Your task to perform on an android device: snooze an email in the gmail app Image 0: 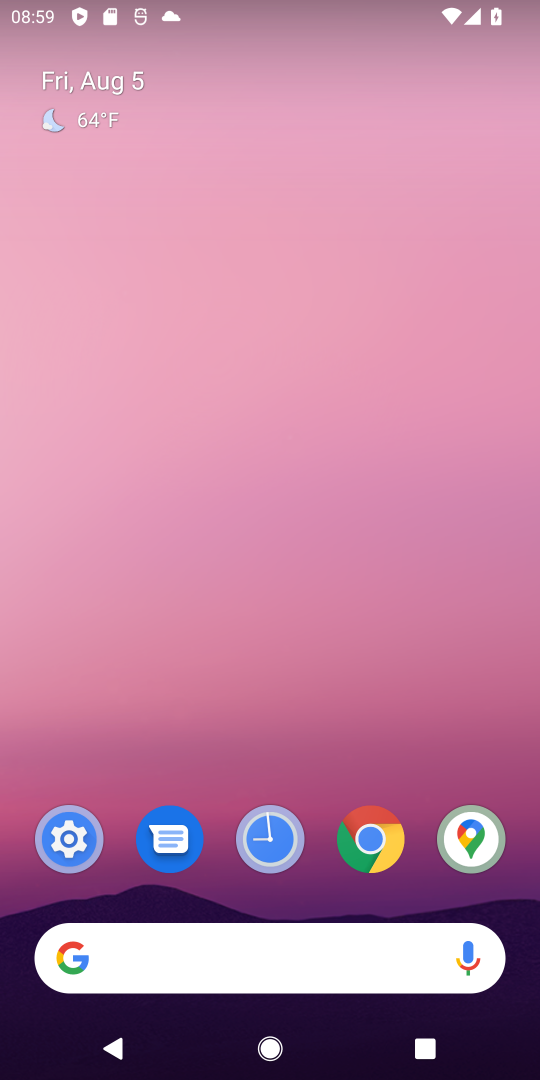
Step 0: drag from (289, 791) to (291, 167)
Your task to perform on an android device: snooze an email in the gmail app Image 1: 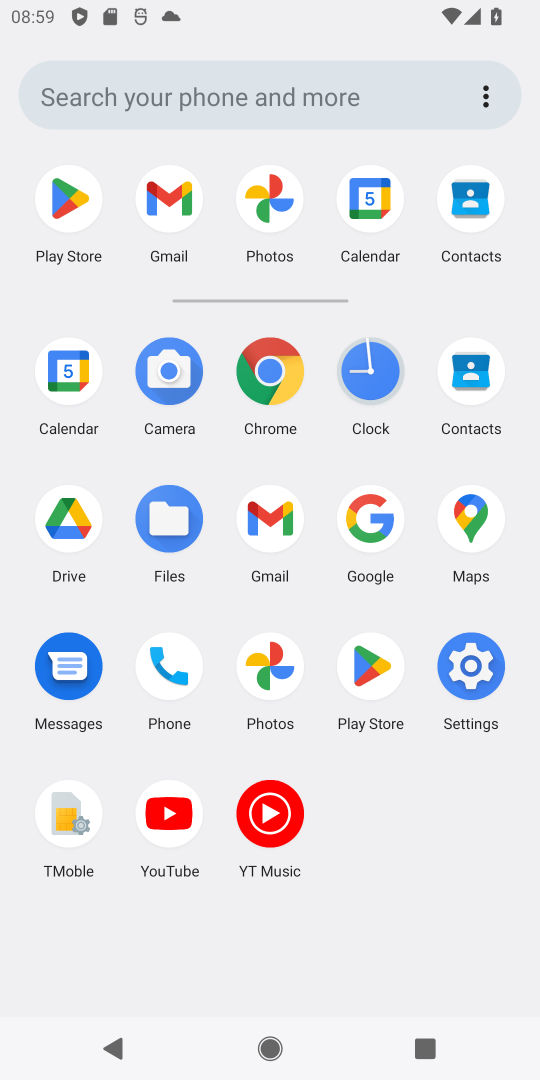
Step 1: click (283, 522)
Your task to perform on an android device: snooze an email in the gmail app Image 2: 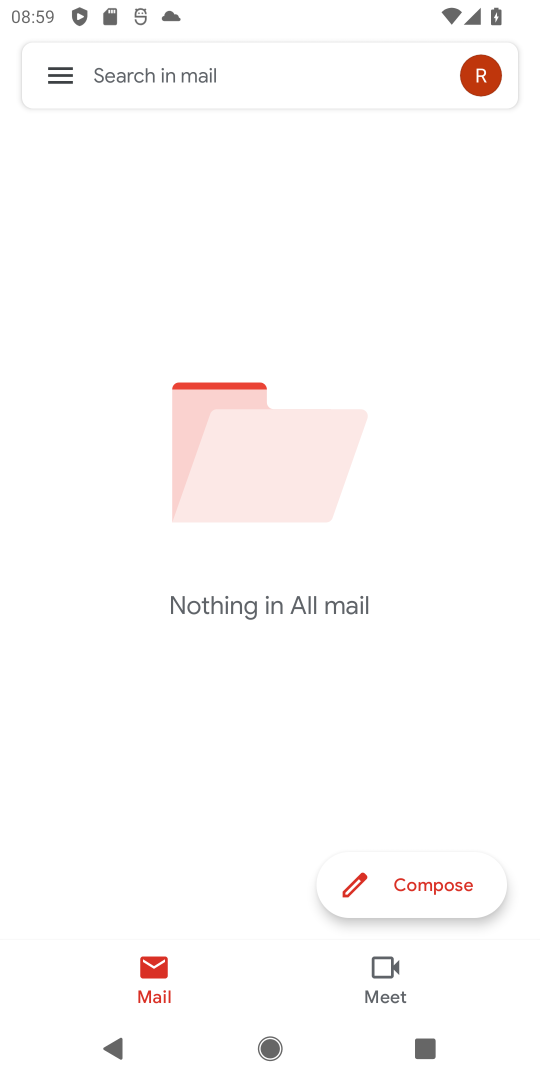
Step 2: click (61, 87)
Your task to perform on an android device: snooze an email in the gmail app Image 3: 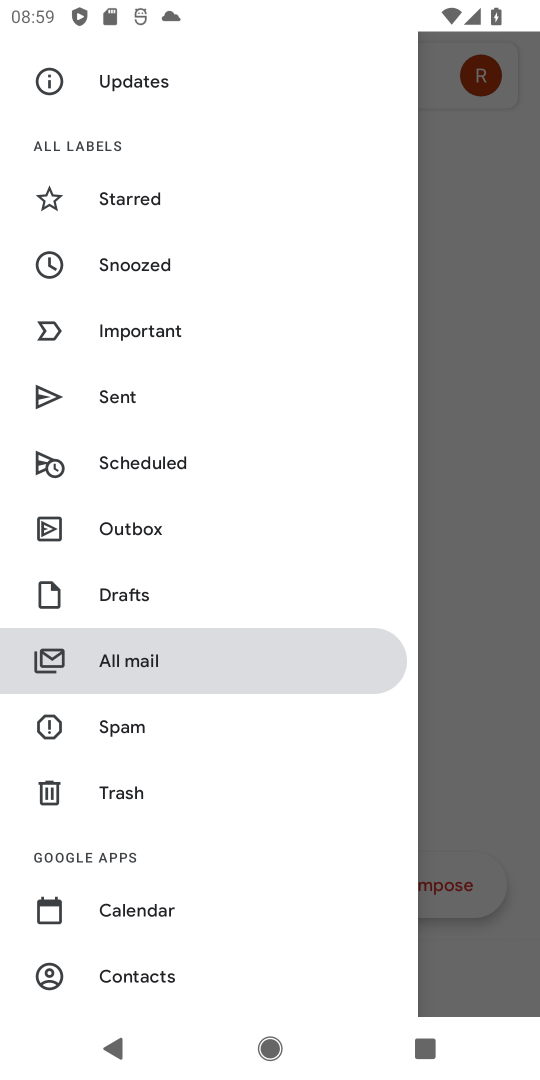
Step 3: drag from (132, 234) to (104, 897)
Your task to perform on an android device: snooze an email in the gmail app Image 4: 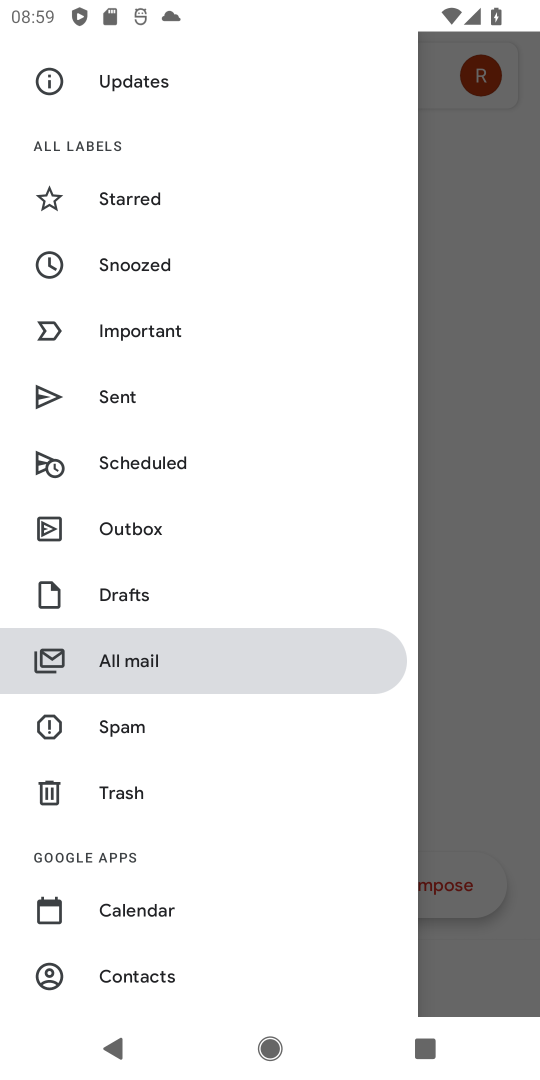
Step 4: drag from (130, 188) to (173, 744)
Your task to perform on an android device: snooze an email in the gmail app Image 5: 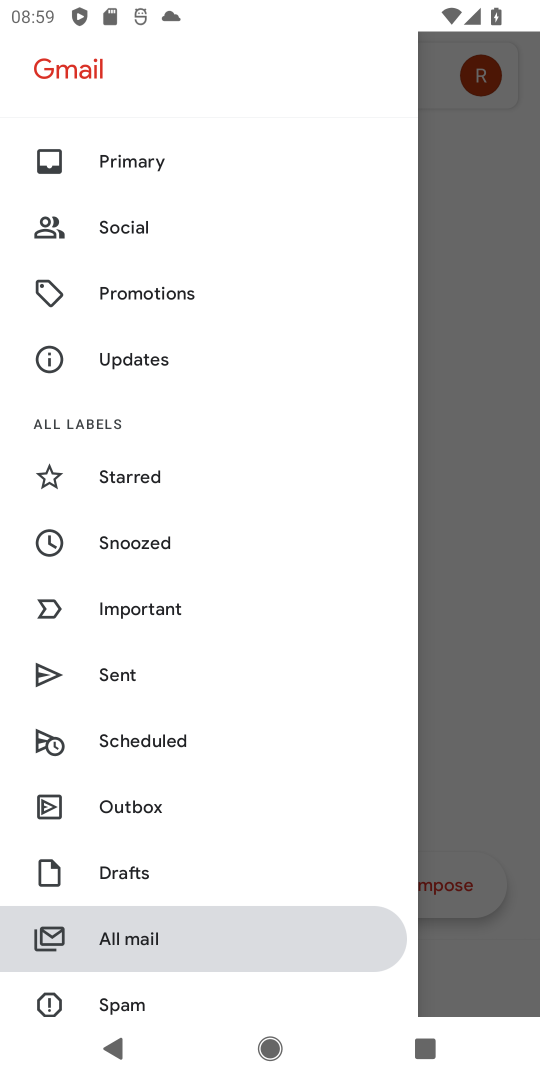
Step 5: click (136, 163)
Your task to perform on an android device: snooze an email in the gmail app Image 6: 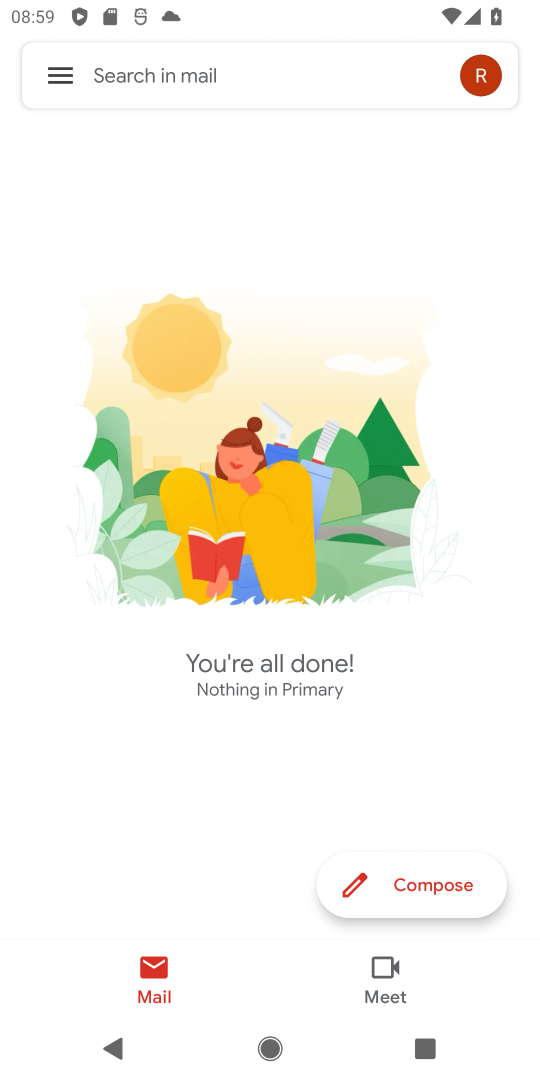
Step 6: task complete